Your task to perform on an android device: turn off javascript in the chrome app Image 0: 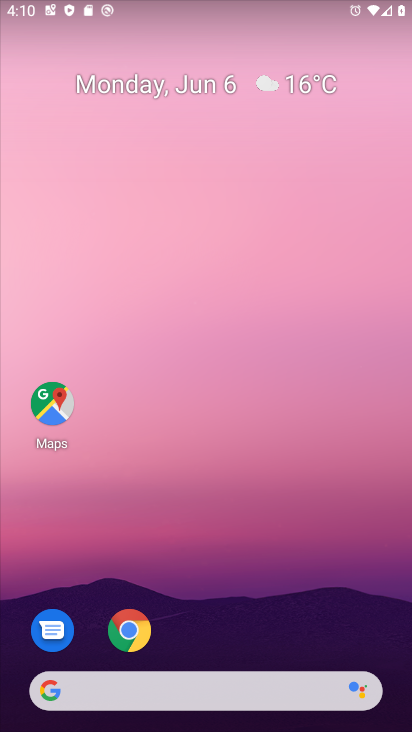
Step 0: click (139, 627)
Your task to perform on an android device: turn off javascript in the chrome app Image 1: 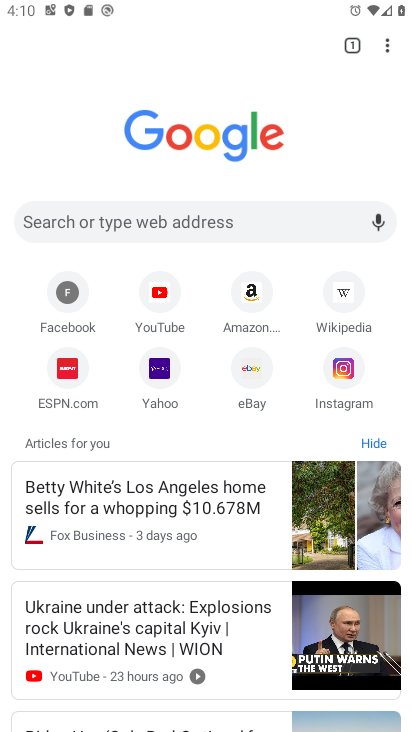
Step 1: click (387, 42)
Your task to perform on an android device: turn off javascript in the chrome app Image 2: 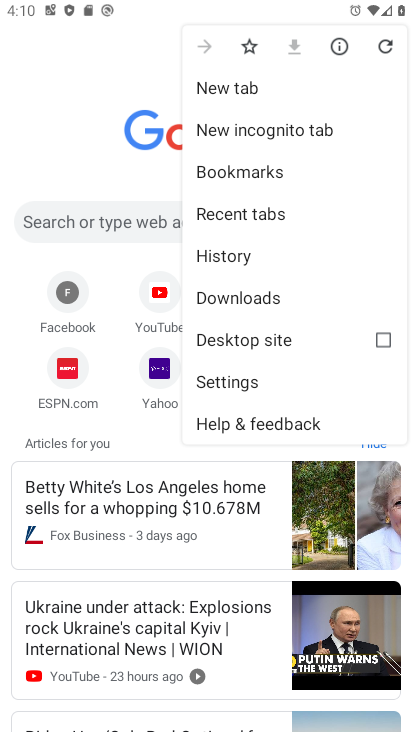
Step 2: click (238, 382)
Your task to perform on an android device: turn off javascript in the chrome app Image 3: 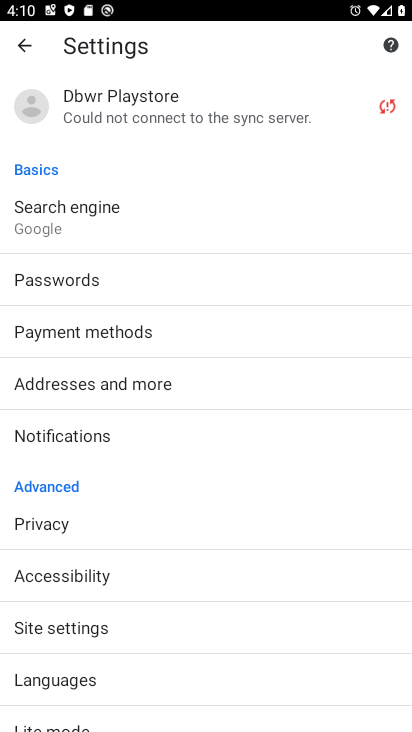
Step 3: click (119, 637)
Your task to perform on an android device: turn off javascript in the chrome app Image 4: 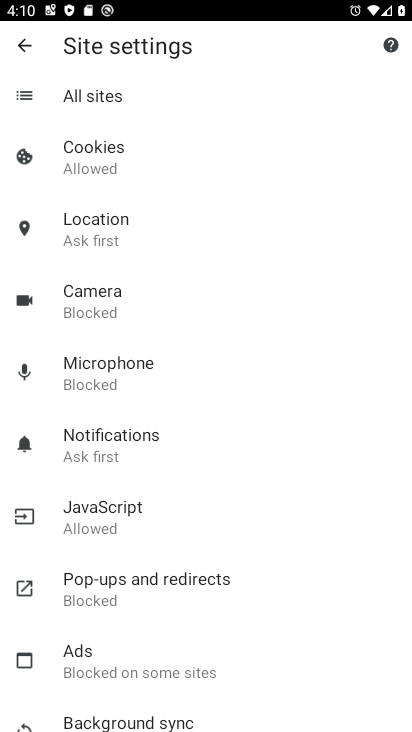
Step 4: click (158, 523)
Your task to perform on an android device: turn off javascript in the chrome app Image 5: 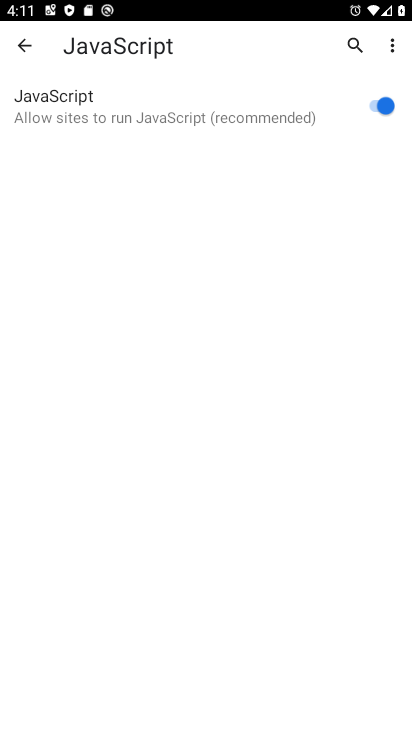
Step 5: click (379, 97)
Your task to perform on an android device: turn off javascript in the chrome app Image 6: 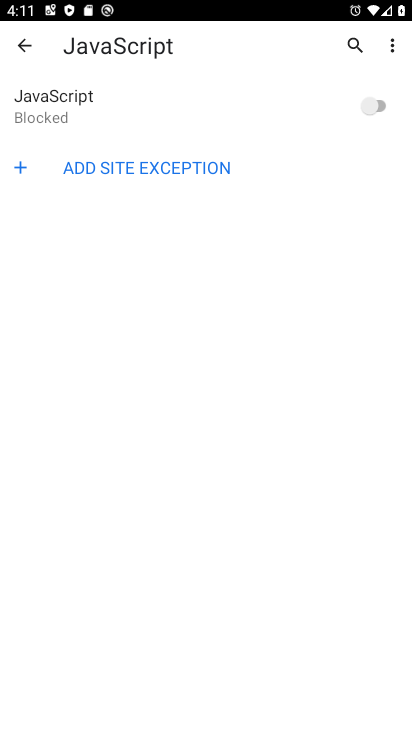
Step 6: task complete